Your task to perform on an android device: Open calendar and show me the first week of next month Image 0: 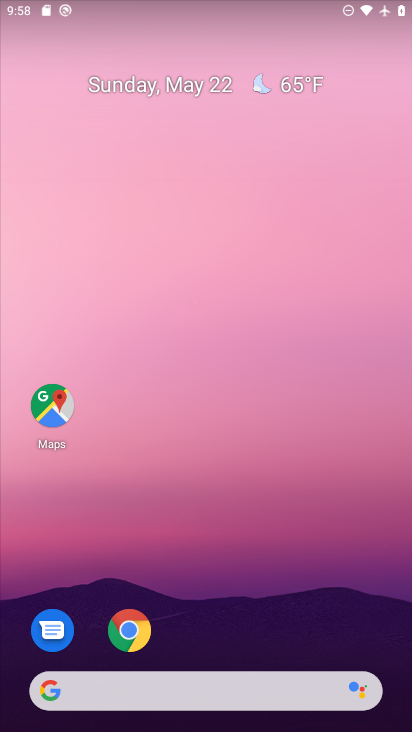
Step 0: drag from (150, 698) to (316, 218)
Your task to perform on an android device: Open calendar and show me the first week of next month Image 1: 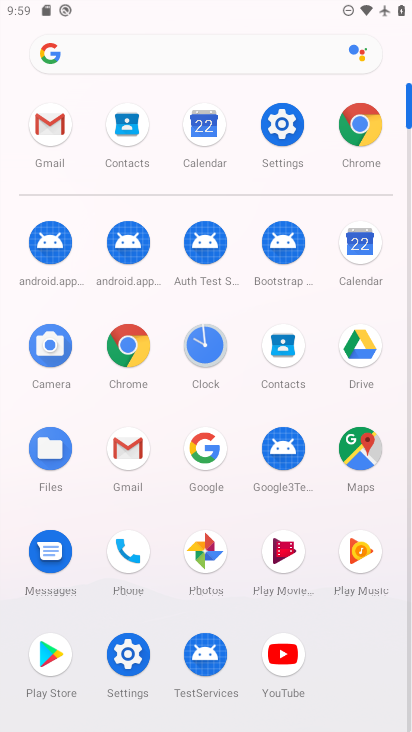
Step 1: click (361, 253)
Your task to perform on an android device: Open calendar and show me the first week of next month Image 2: 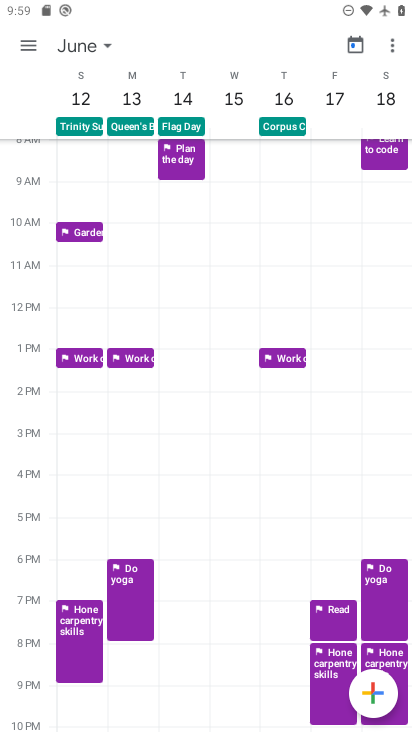
Step 2: click (72, 50)
Your task to perform on an android device: Open calendar and show me the first week of next month Image 3: 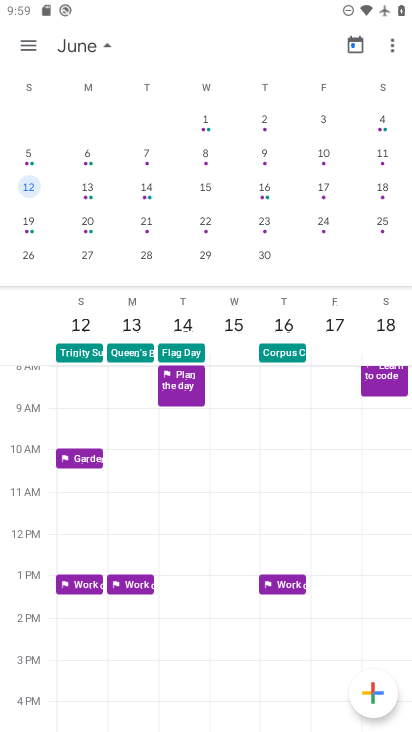
Step 3: click (208, 122)
Your task to perform on an android device: Open calendar and show me the first week of next month Image 4: 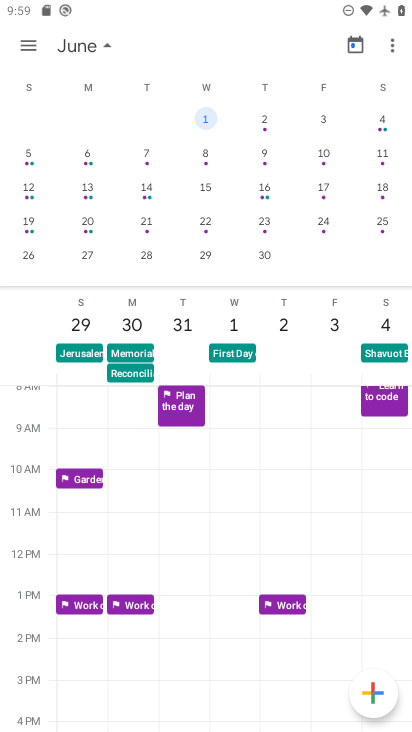
Step 4: click (25, 39)
Your task to perform on an android device: Open calendar and show me the first week of next month Image 5: 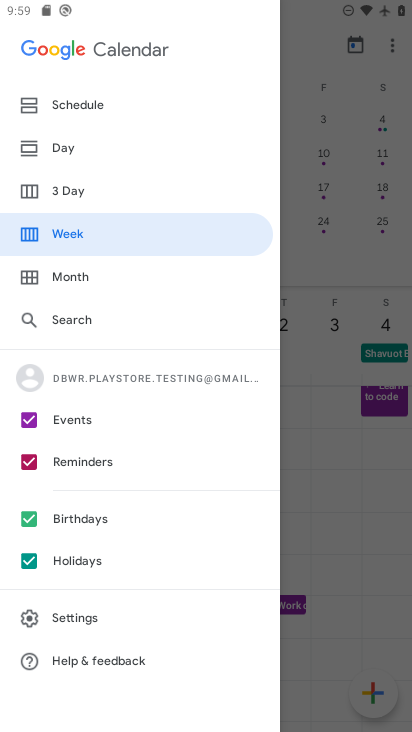
Step 5: click (79, 238)
Your task to perform on an android device: Open calendar and show me the first week of next month Image 6: 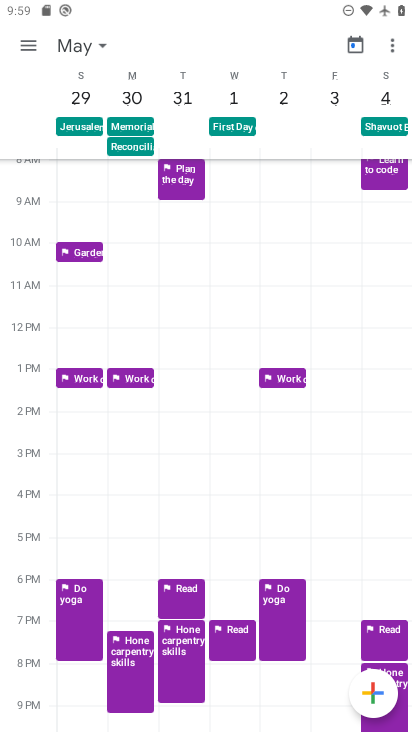
Step 6: task complete